Your task to perform on an android device: turn off notifications settings in the gmail app Image 0: 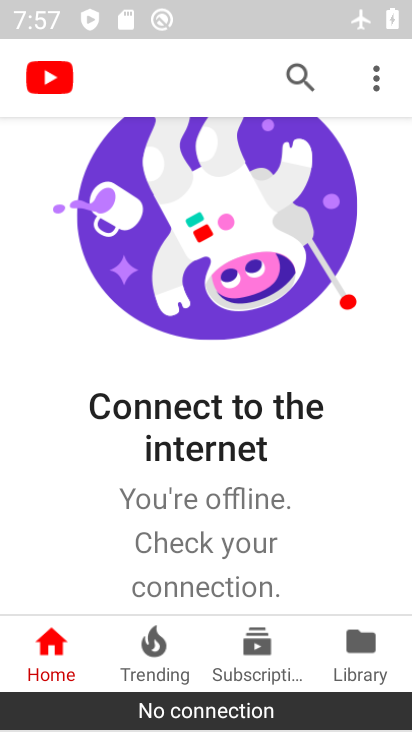
Step 0: press home button
Your task to perform on an android device: turn off notifications settings in the gmail app Image 1: 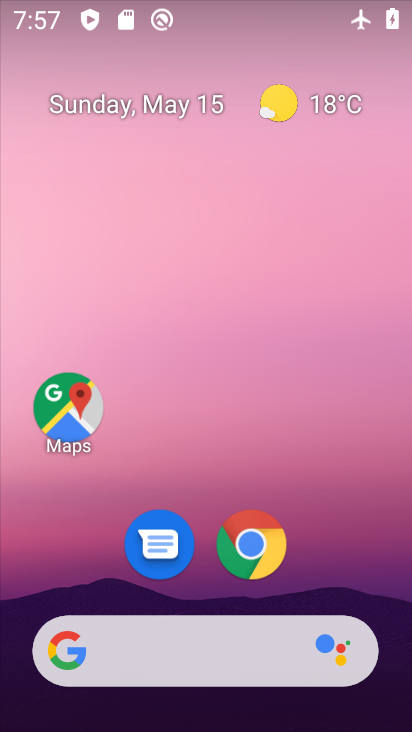
Step 1: drag from (299, 387) to (265, 112)
Your task to perform on an android device: turn off notifications settings in the gmail app Image 2: 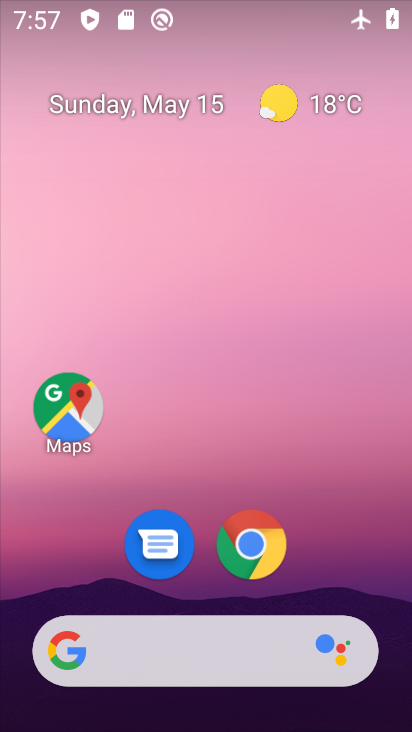
Step 2: drag from (324, 537) to (273, 129)
Your task to perform on an android device: turn off notifications settings in the gmail app Image 3: 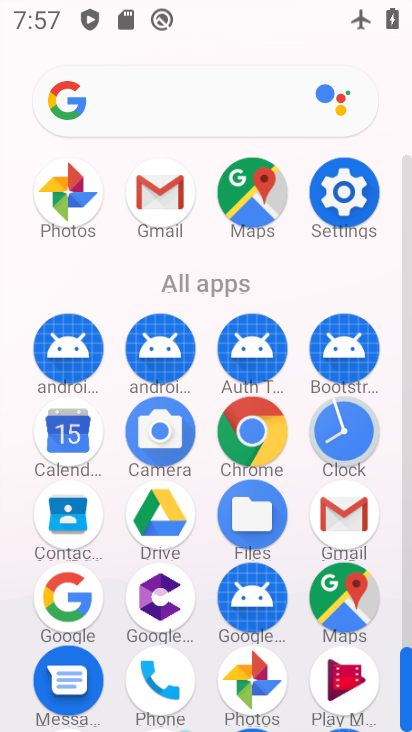
Step 3: click (171, 193)
Your task to perform on an android device: turn off notifications settings in the gmail app Image 4: 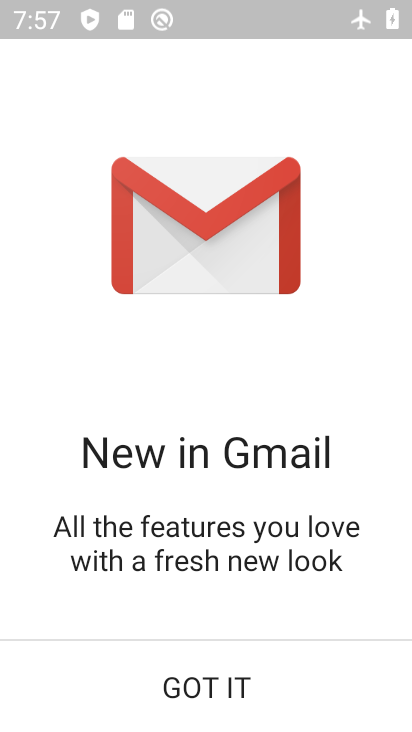
Step 4: click (264, 672)
Your task to perform on an android device: turn off notifications settings in the gmail app Image 5: 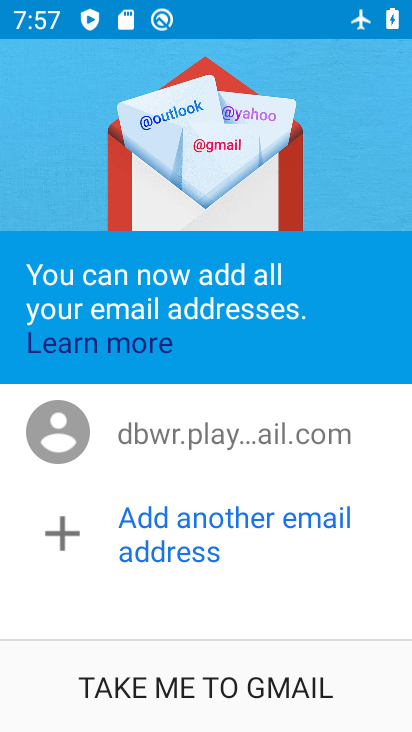
Step 5: click (264, 672)
Your task to perform on an android device: turn off notifications settings in the gmail app Image 6: 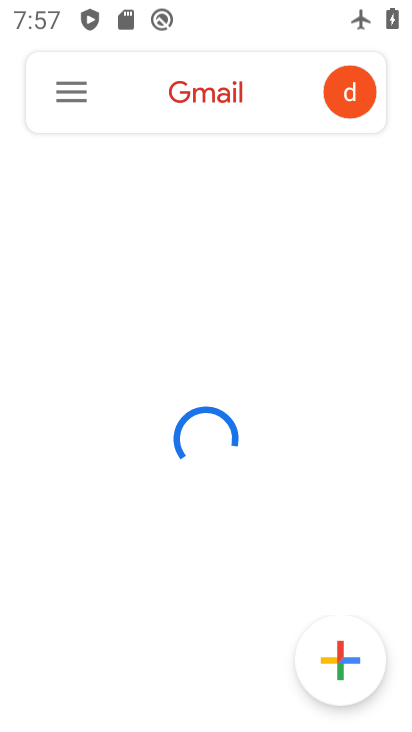
Step 6: click (42, 86)
Your task to perform on an android device: turn off notifications settings in the gmail app Image 7: 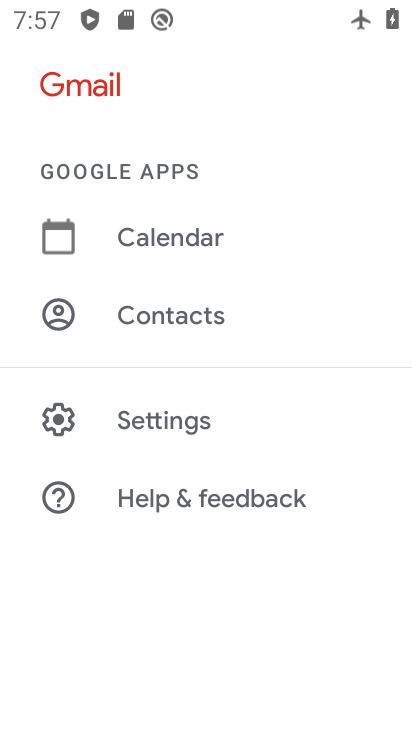
Step 7: click (167, 415)
Your task to perform on an android device: turn off notifications settings in the gmail app Image 8: 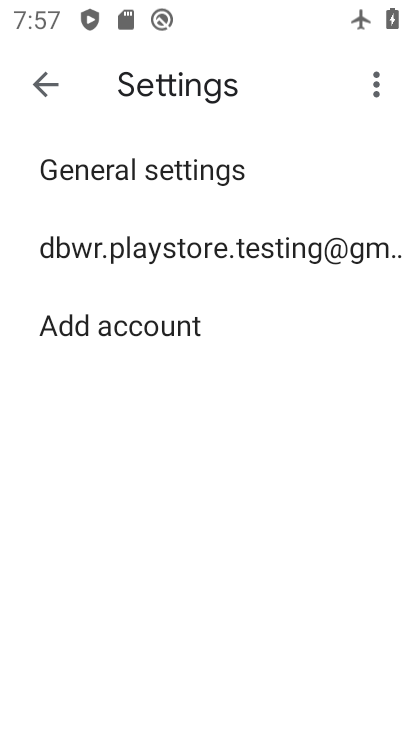
Step 8: click (173, 220)
Your task to perform on an android device: turn off notifications settings in the gmail app Image 9: 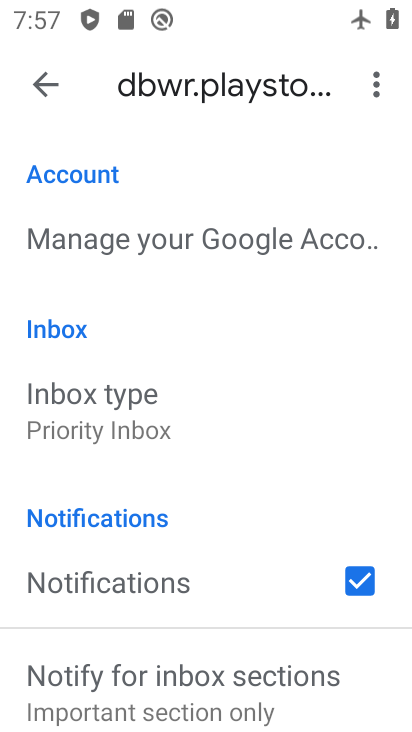
Step 9: drag from (217, 565) to (215, 279)
Your task to perform on an android device: turn off notifications settings in the gmail app Image 10: 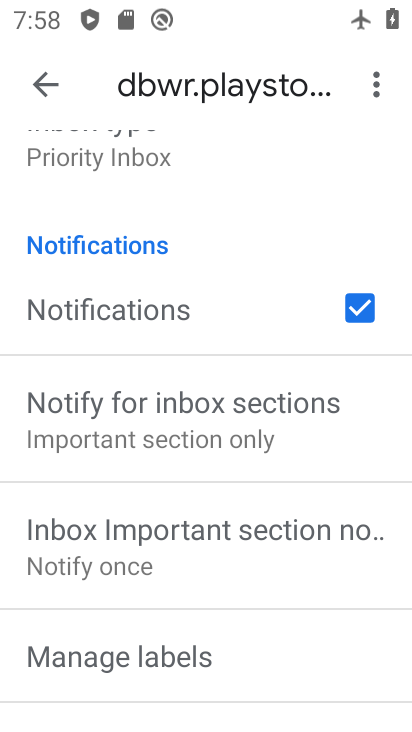
Step 10: drag from (271, 587) to (252, 231)
Your task to perform on an android device: turn off notifications settings in the gmail app Image 11: 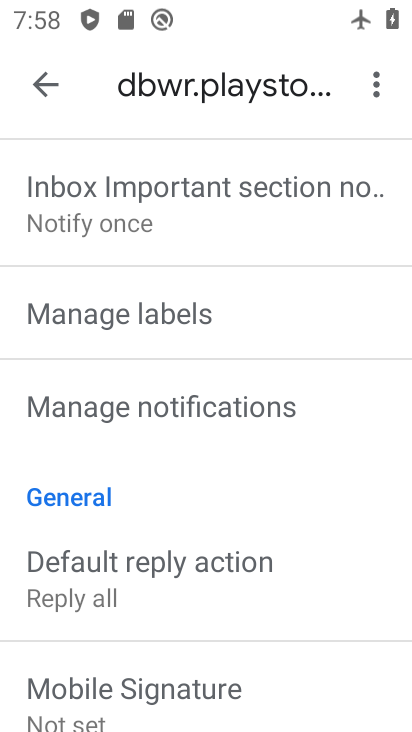
Step 11: click (265, 403)
Your task to perform on an android device: turn off notifications settings in the gmail app Image 12: 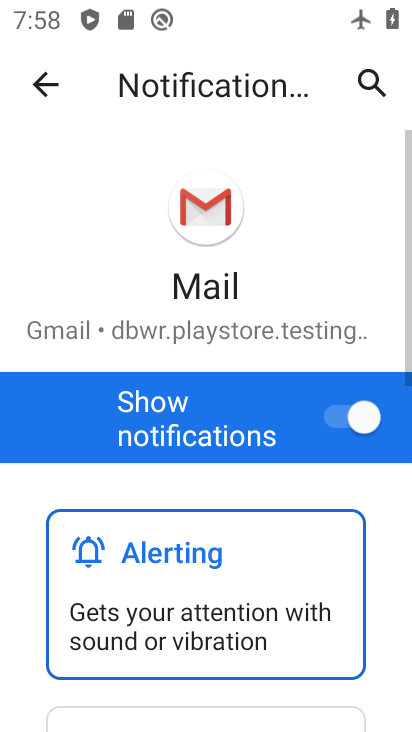
Step 12: click (365, 413)
Your task to perform on an android device: turn off notifications settings in the gmail app Image 13: 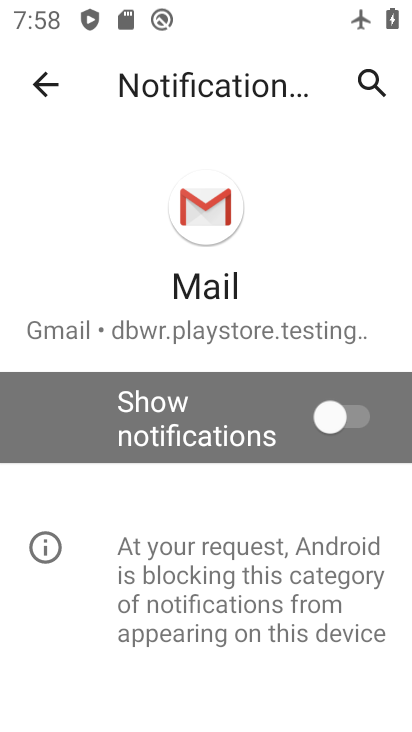
Step 13: task complete